Your task to perform on an android device: Open the contacts Image 0: 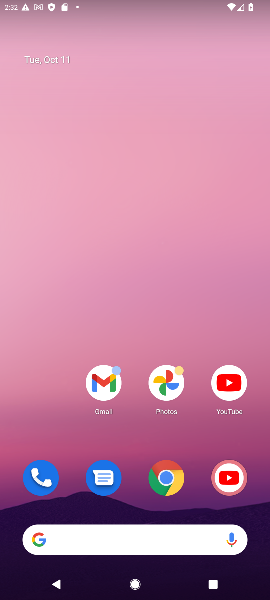
Step 0: drag from (135, 536) to (129, 17)
Your task to perform on an android device: Open the contacts Image 1: 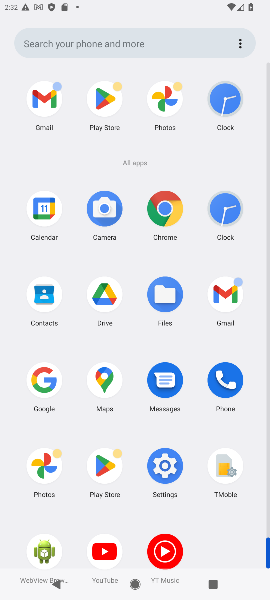
Step 1: click (47, 305)
Your task to perform on an android device: Open the contacts Image 2: 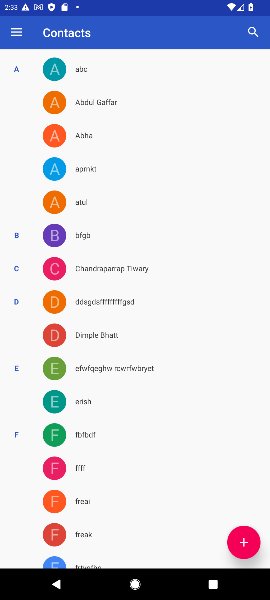
Step 2: task complete